Your task to perform on an android device: Go to privacy settings Image 0: 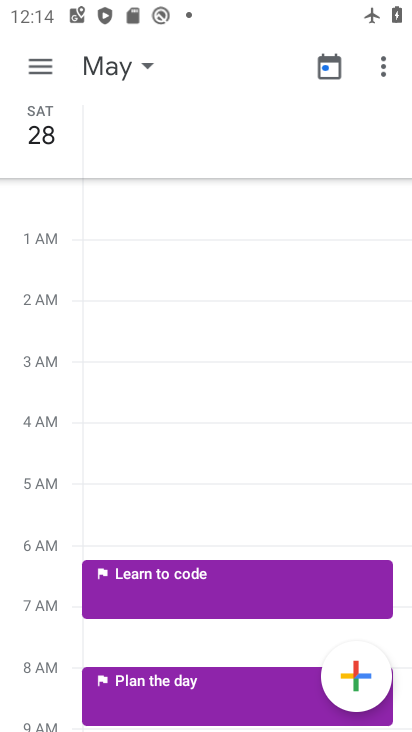
Step 0: press home button
Your task to perform on an android device: Go to privacy settings Image 1: 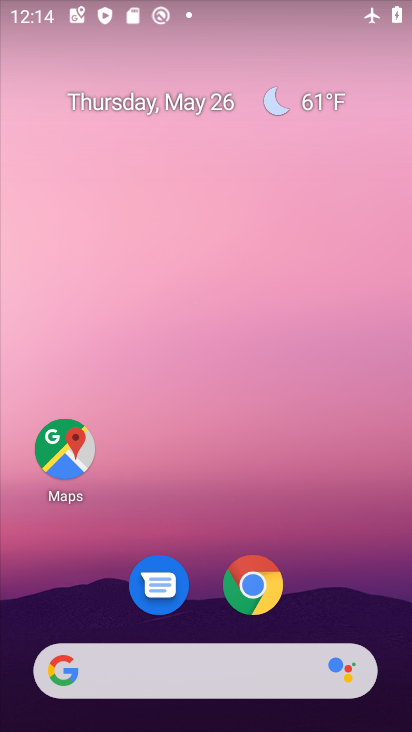
Step 1: drag from (220, 500) to (304, 26)
Your task to perform on an android device: Go to privacy settings Image 2: 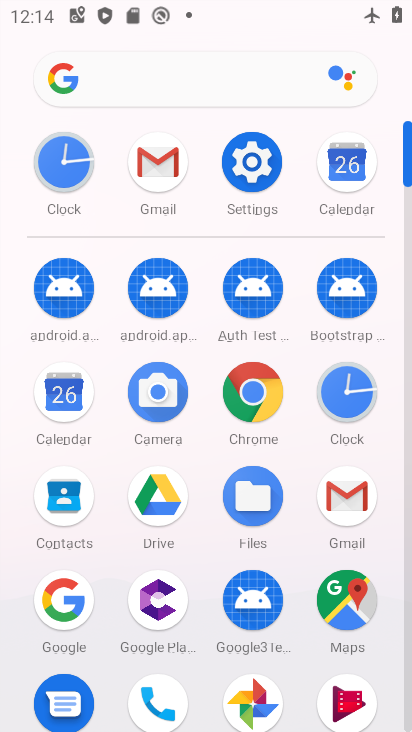
Step 2: click (271, 157)
Your task to perform on an android device: Go to privacy settings Image 3: 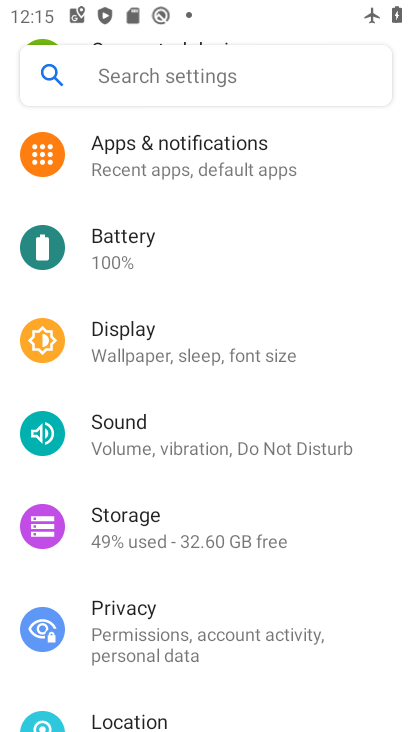
Step 3: click (204, 615)
Your task to perform on an android device: Go to privacy settings Image 4: 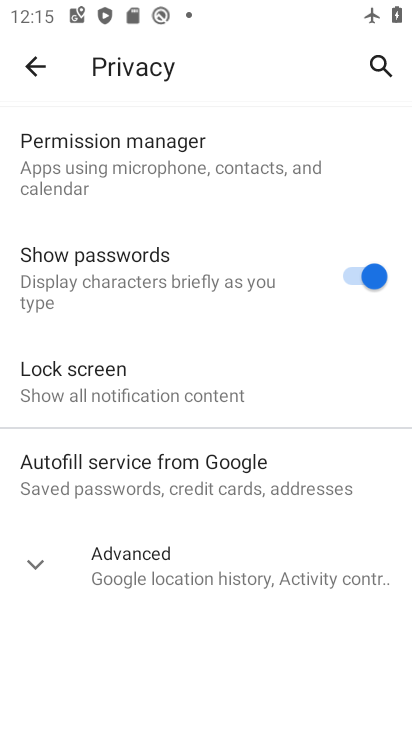
Step 4: task complete